Your task to perform on an android device: turn off notifications settings in the gmail app Image 0: 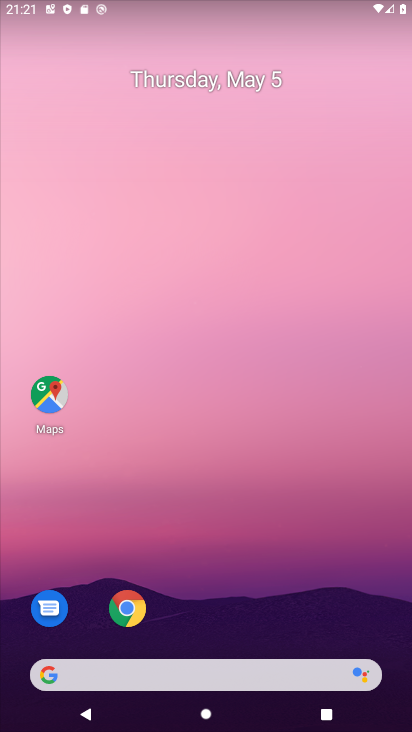
Step 0: drag from (312, 664) to (312, 78)
Your task to perform on an android device: turn off notifications settings in the gmail app Image 1: 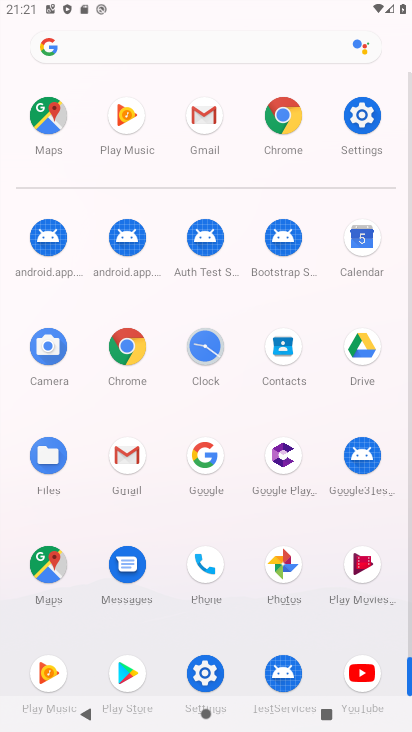
Step 1: click (126, 464)
Your task to perform on an android device: turn off notifications settings in the gmail app Image 2: 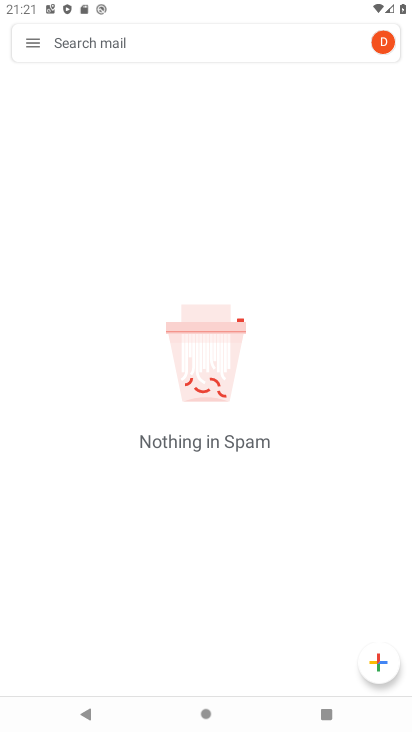
Step 2: click (39, 43)
Your task to perform on an android device: turn off notifications settings in the gmail app Image 3: 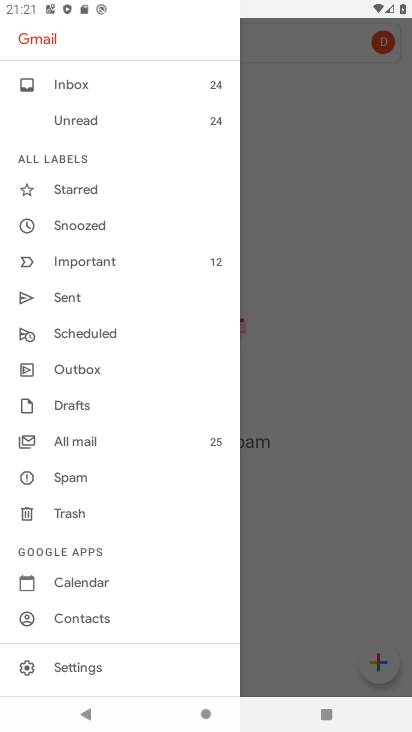
Step 3: click (118, 660)
Your task to perform on an android device: turn off notifications settings in the gmail app Image 4: 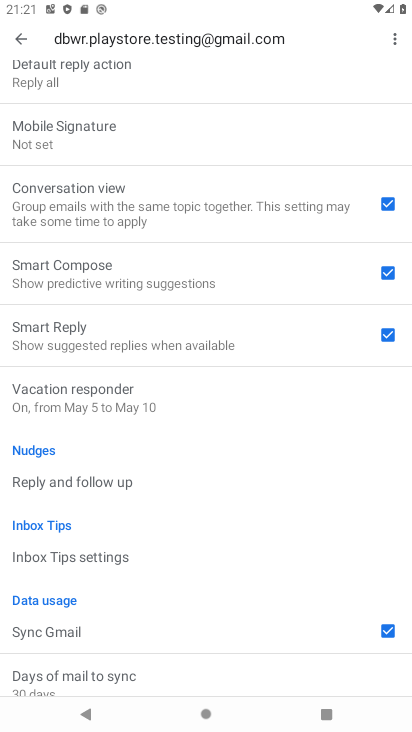
Step 4: drag from (225, 129) to (242, 657)
Your task to perform on an android device: turn off notifications settings in the gmail app Image 5: 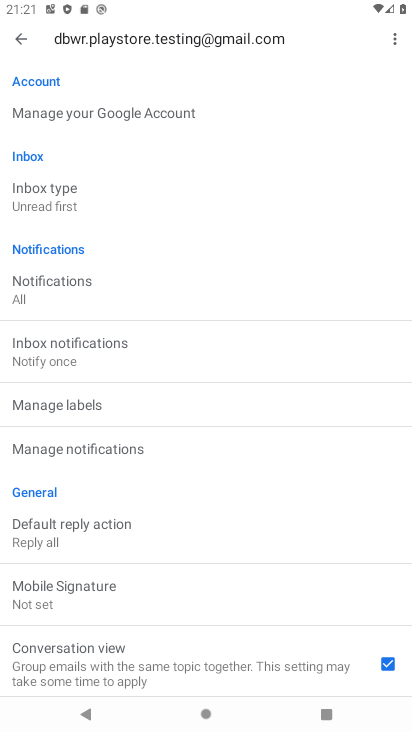
Step 5: click (130, 449)
Your task to perform on an android device: turn off notifications settings in the gmail app Image 6: 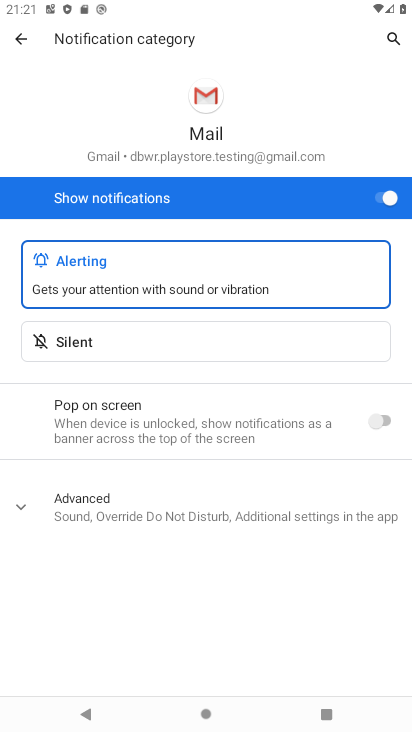
Step 6: click (382, 197)
Your task to perform on an android device: turn off notifications settings in the gmail app Image 7: 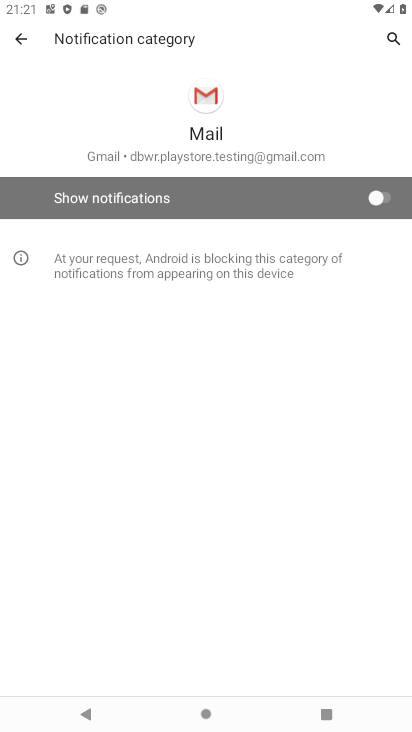
Step 7: task complete